Your task to perform on an android device: open chrome privacy settings Image 0: 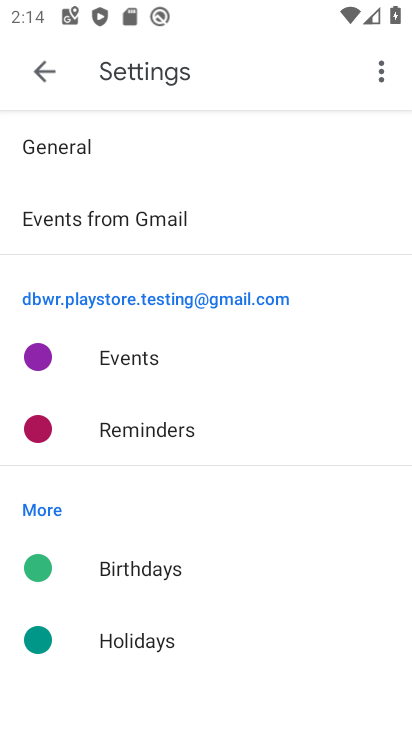
Step 0: press home button
Your task to perform on an android device: open chrome privacy settings Image 1: 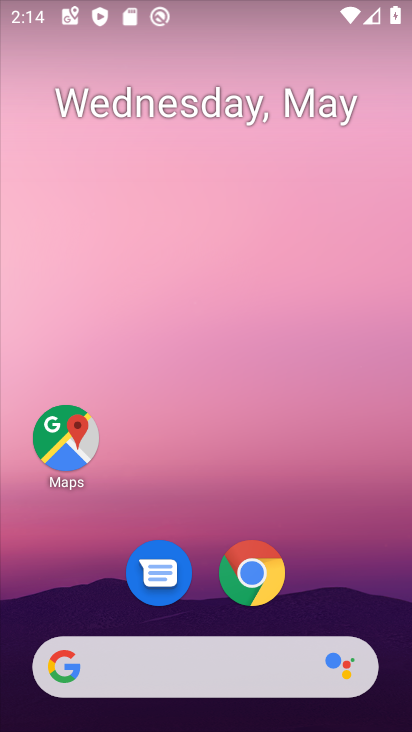
Step 1: click (261, 582)
Your task to perform on an android device: open chrome privacy settings Image 2: 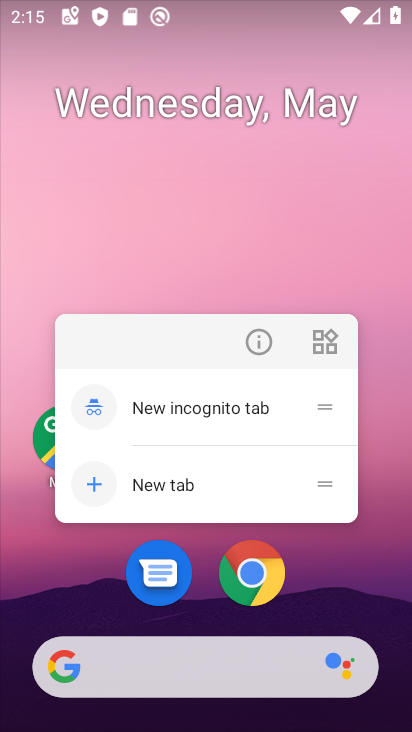
Step 2: click (246, 567)
Your task to perform on an android device: open chrome privacy settings Image 3: 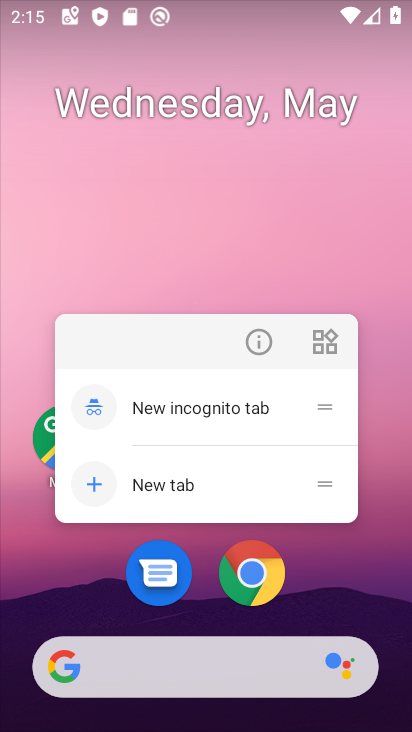
Step 3: click (246, 567)
Your task to perform on an android device: open chrome privacy settings Image 4: 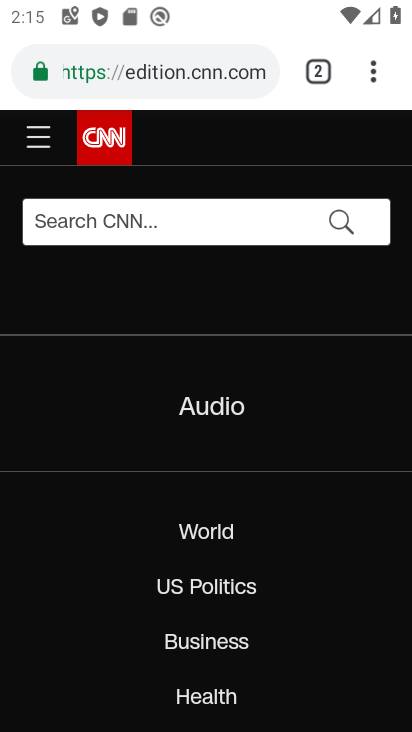
Step 4: click (377, 75)
Your task to perform on an android device: open chrome privacy settings Image 5: 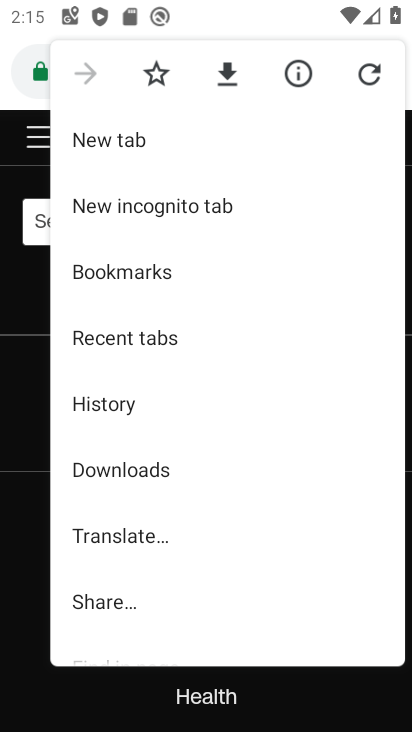
Step 5: drag from (156, 440) to (187, 92)
Your task to perform on an android device: open chrome privacy settings Image 6: 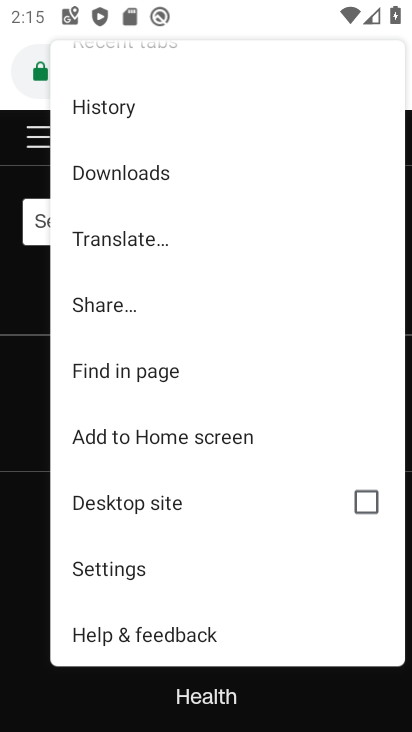
Step 6: click (166, 576)
Your task to perform on an android device: open chrome privacy settings Image 7: 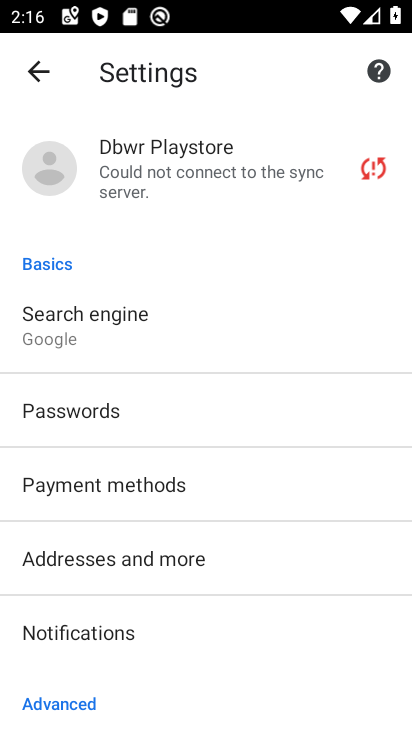
Step 7: drag from (233, 692) to (246, 427)
Your task to perform on an android device: open chrome privacy settings Image 8: 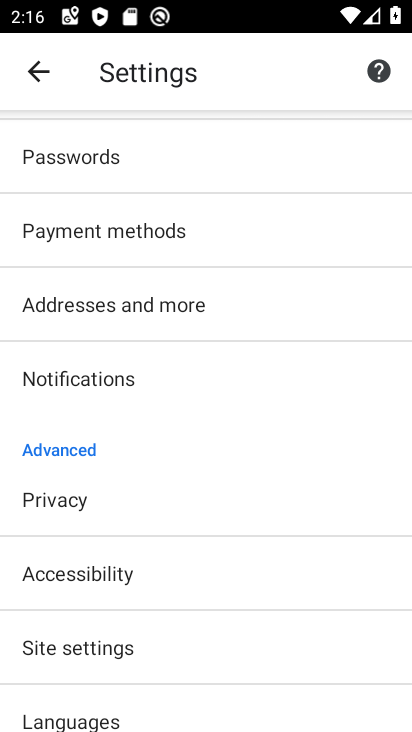
Step 8: click (83, 500)
Your task to perform on an android device: open chrome privacy settings Image 9: 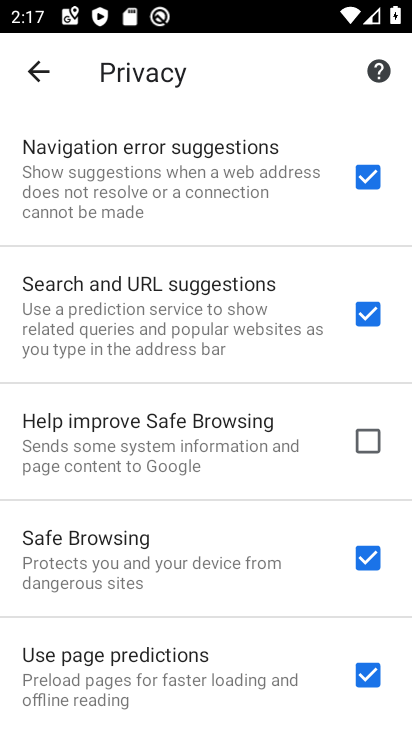
Step 9: task complete